Your task to perform on an android device: Open Youtube and go to the subscriptions tab Image 0: 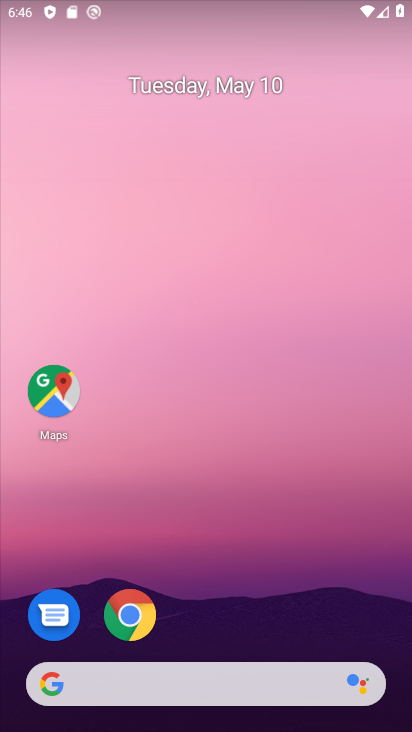
Step 0: drag from (225, 582) to (166, 93)
Your task to perform on an android device: Open Youtube and go to the subscriptions tab Image 1: 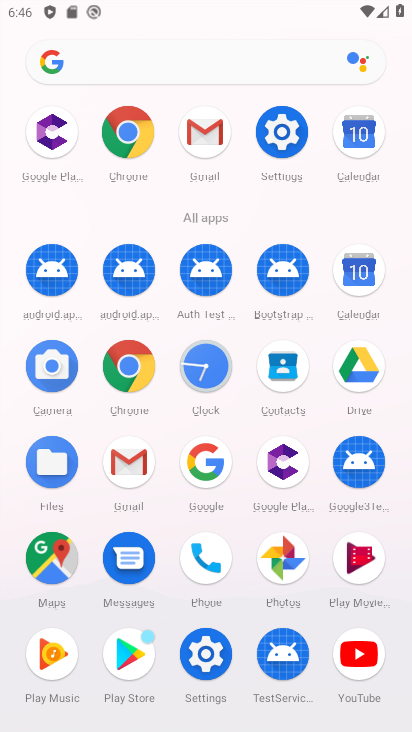
Step 1: click (362, 659)
Your task to perform on an android device: Open Youtube and go to the subscriptions tab Image 2: 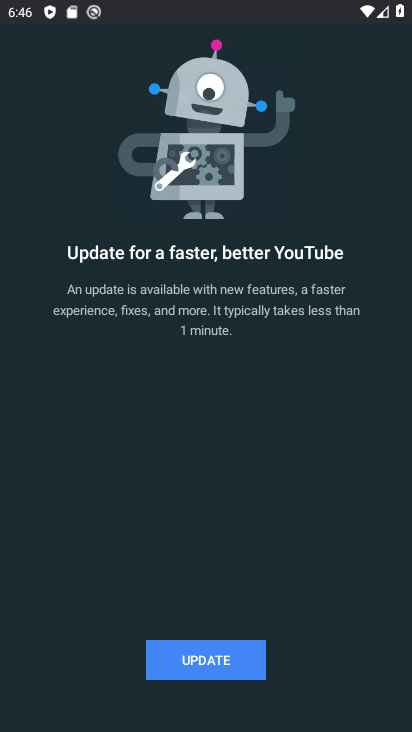
Step 2: click (215, 663)
Your task to perform on an android device: Open Youtube and go to the subscriptions tab Image 3: 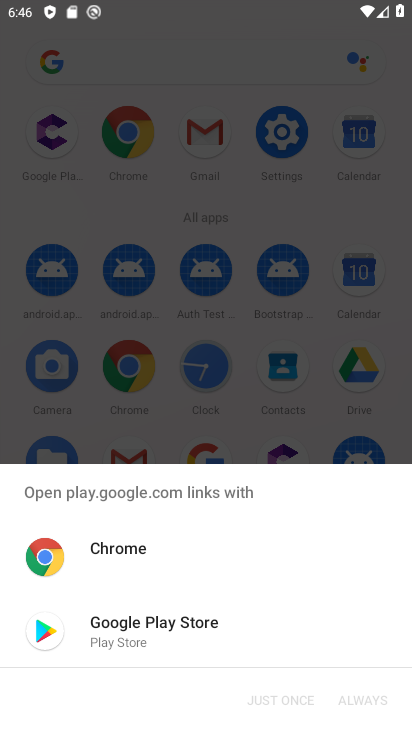
Step 3: click (134, 623)
Your task to perform on an android device: Open Youtube and go to the subscriptions tab Image 4: 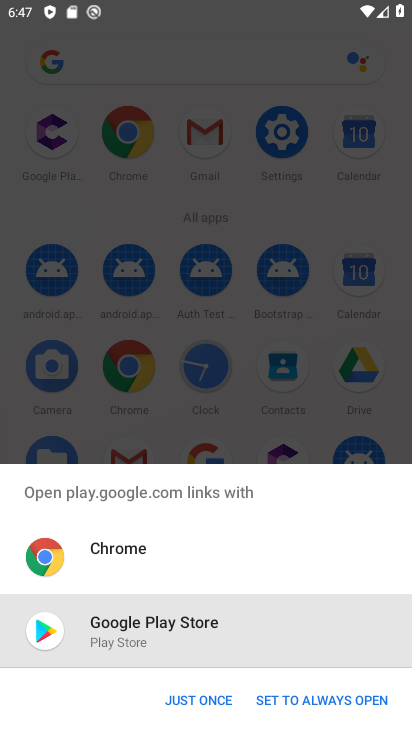
Step 4: click (207, 698)
Your task to perform on an android device: Open Youtube and go to the subscriptions tab Image 5: 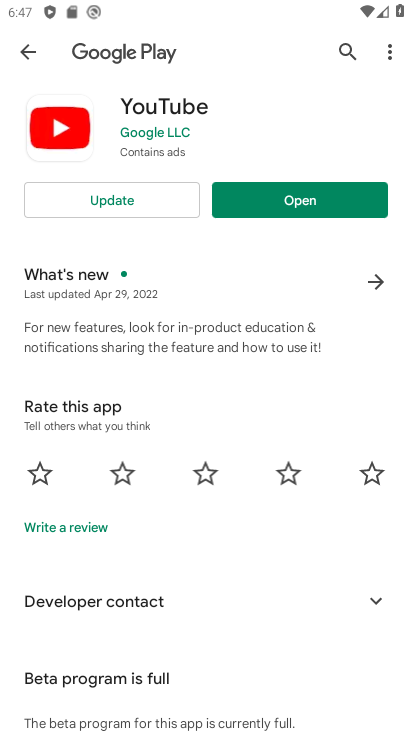
Step 5: click (127, 194)
Your task to perform on an android device: Open Youtube and go to the subscriptions tab Image 6: 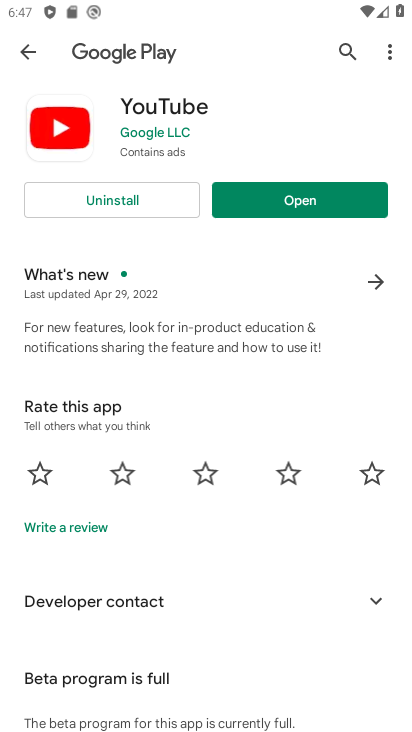
Step 6: click (295, 202)
Your task to perform on an android device: Open Youtube and go to the subscriptions tab Image 7: 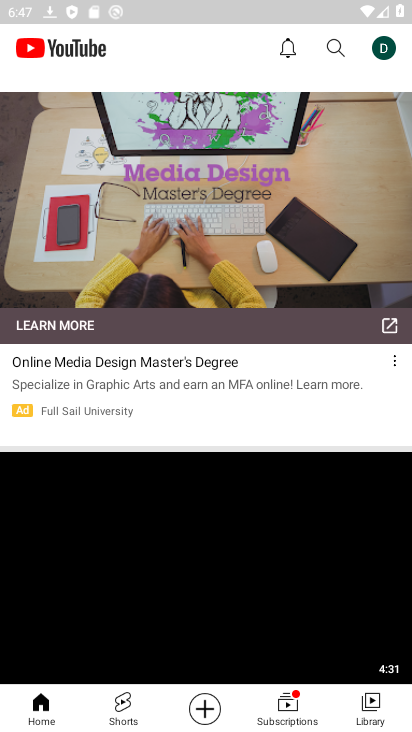
Step 7: click (278, 702)
Your task to perform on an android device: Open Youtube and go to the subscriptions tab Image 8: 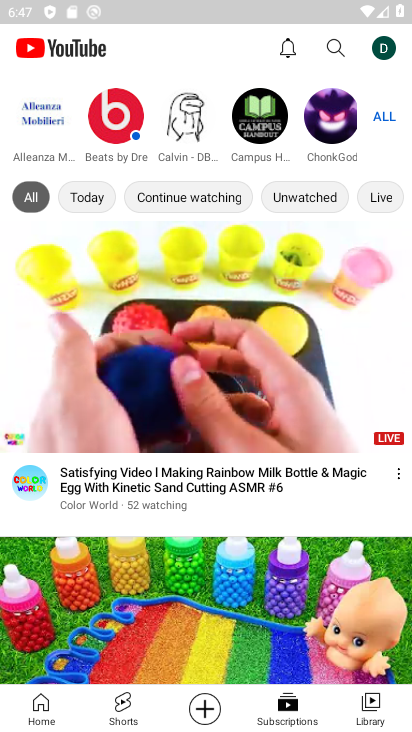
Step 8: task complete